Your task to perform on an android device: find which apps use the phone's location Image 0: 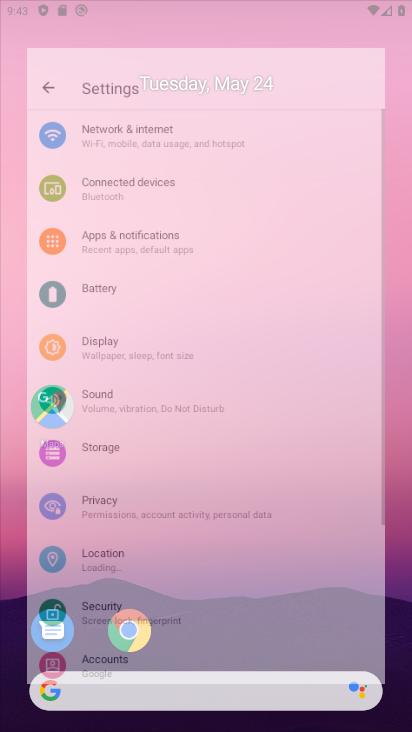
Step 0: press home button
Your task to perform on an android device: find which apps use the phone's location Image 1: 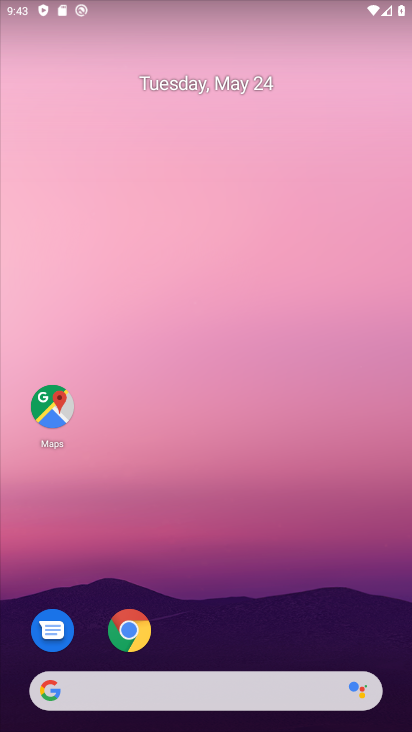
Step 1: drag from (209, 651) to (255, 75)
Your task to perform on an android device: find which apps use the phone's location Image 2: 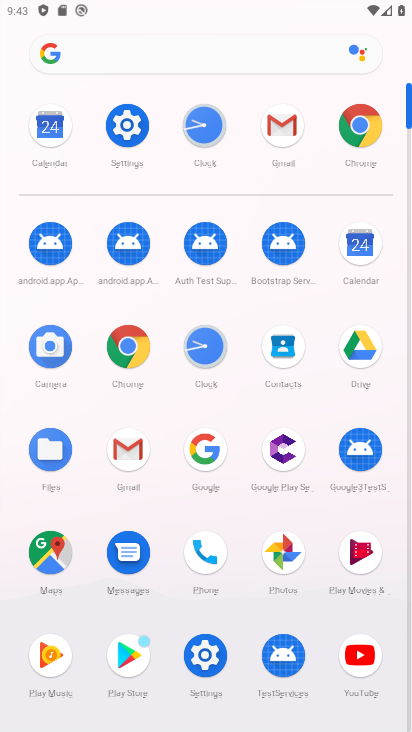
Step 2: click (205, 647)
Your task to perform on an android device: find which apps use the phone's location Image 3: 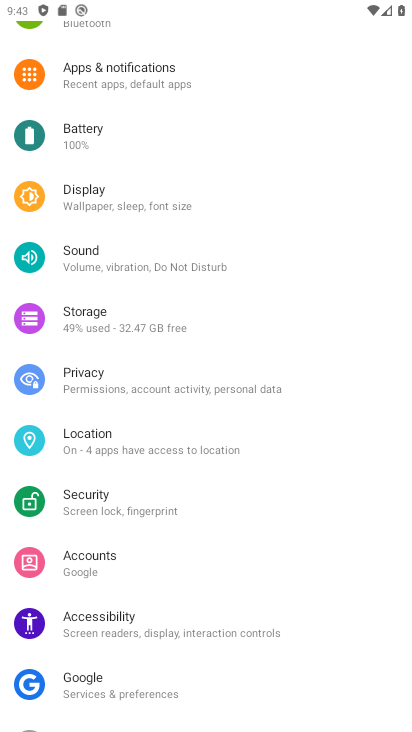
Step 3: click (116, 435)
Your task to perform on an android device: find which apps use the phone's location Image 4: 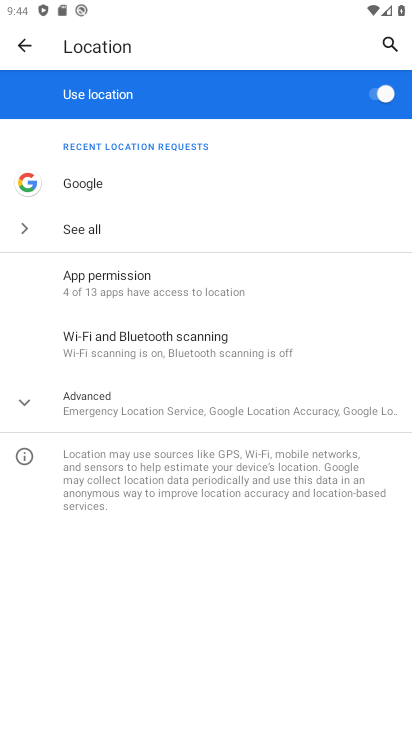
Step 4: click (75, 277)
Your task to perform on an android device: find which apps use the phone's location Image 5: 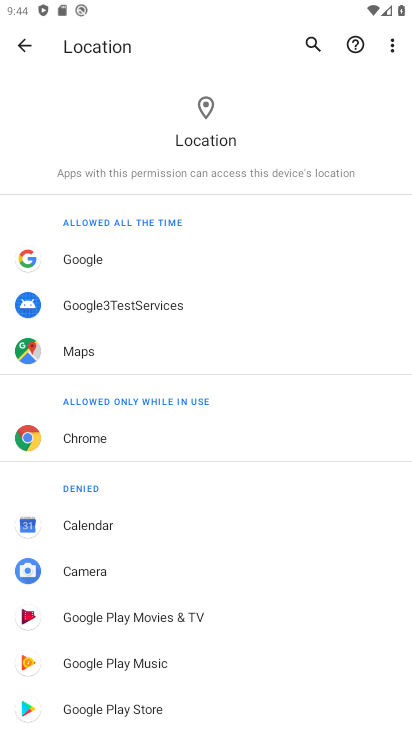
Step 5: task complete